Your task to perform on an android device: Open calendar and show me the second week of next month Image 0: 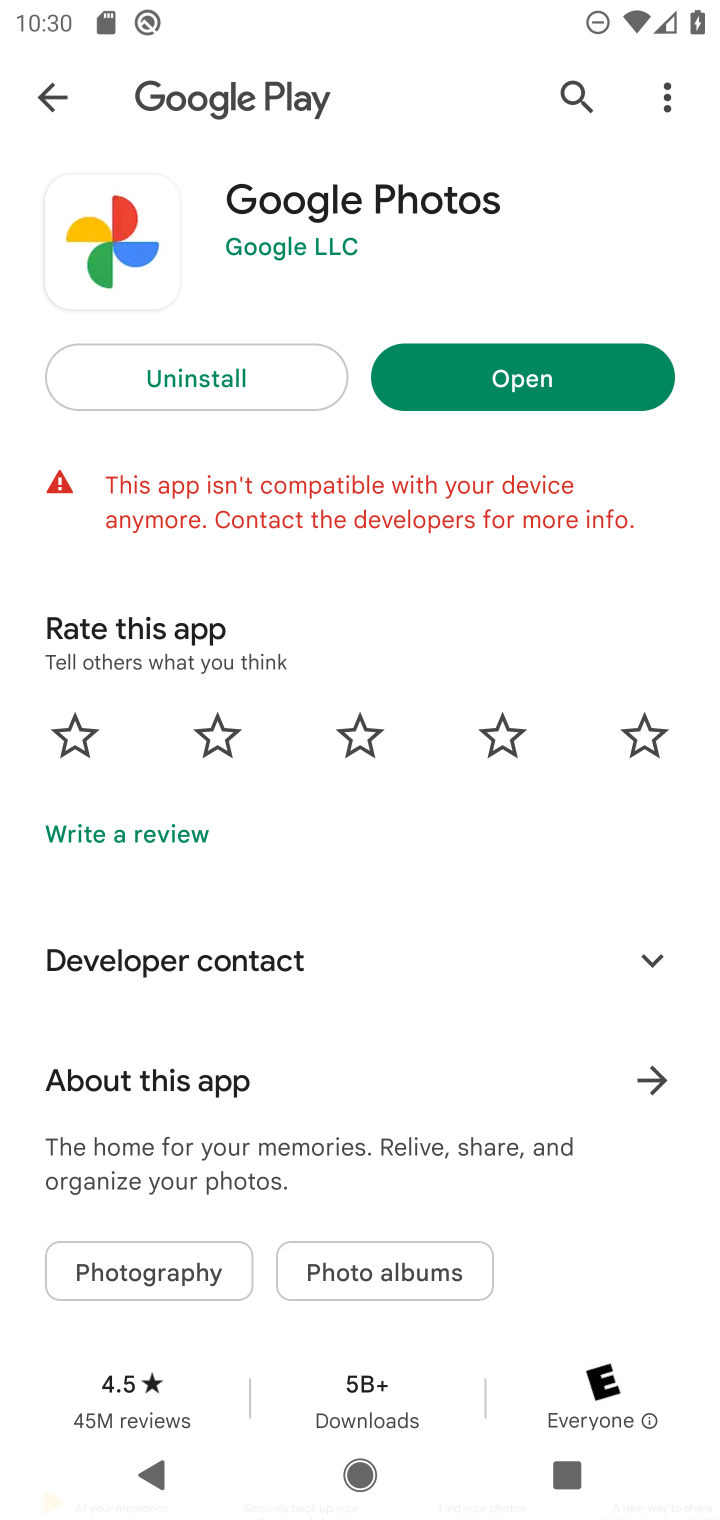
Step 0: press home button
Your task to perform on an android device: Open calendar and show me the second week of next month Image 1: 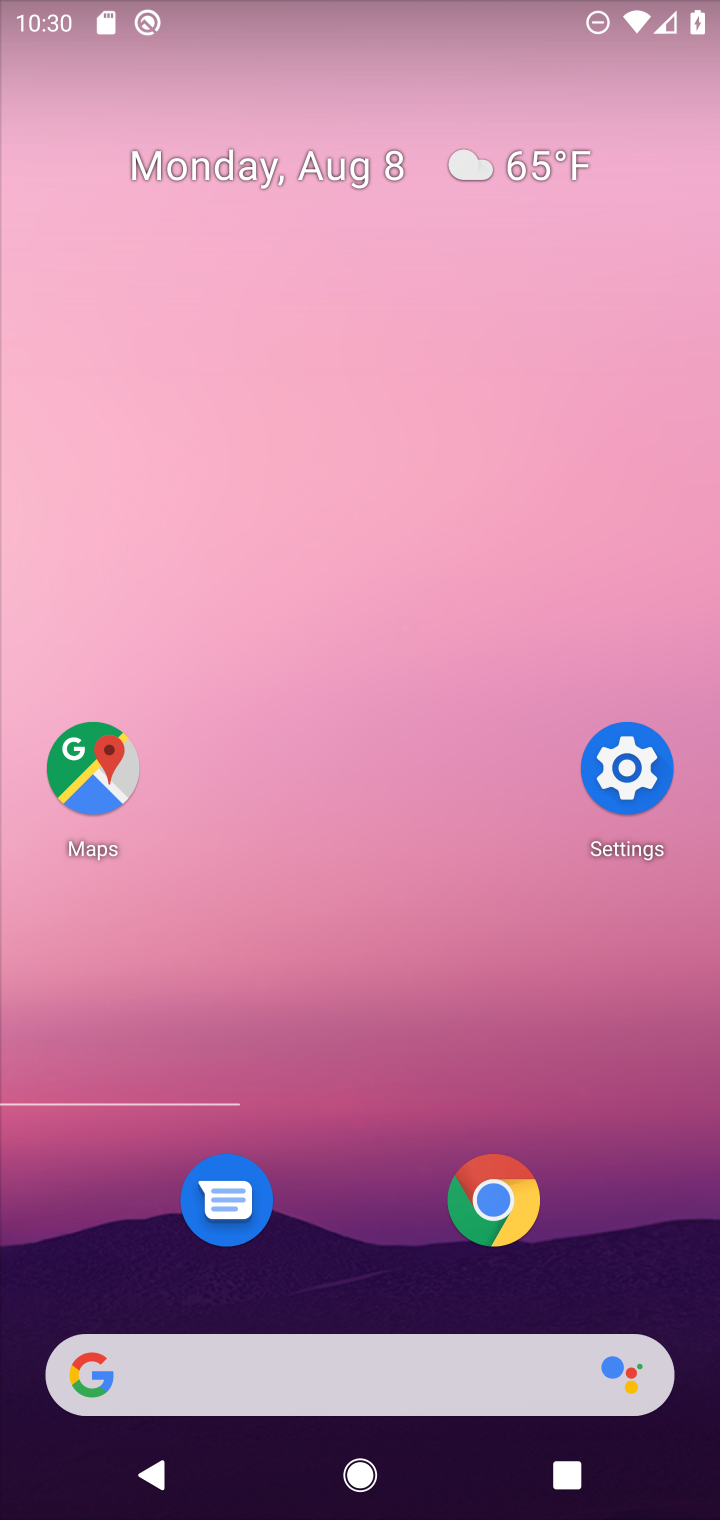
Step 1: drag from (404, 1118) to (461, 10)
Your task to perform on an android device: Open calendar and show me the second week of next month Image 2: 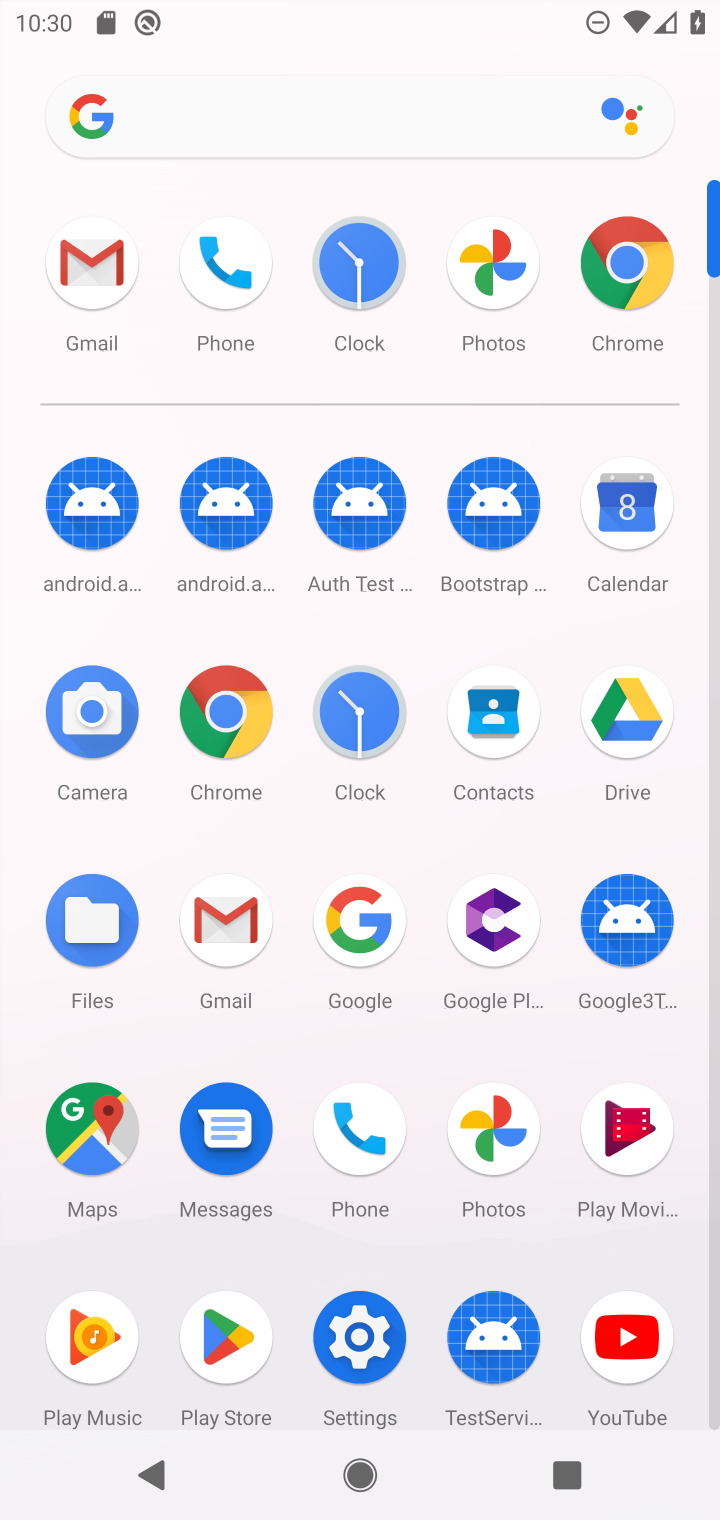
Step 2: click (616, 514)
Your task to perform on an android device: Open calendar and show me the second week of next month Image 3: 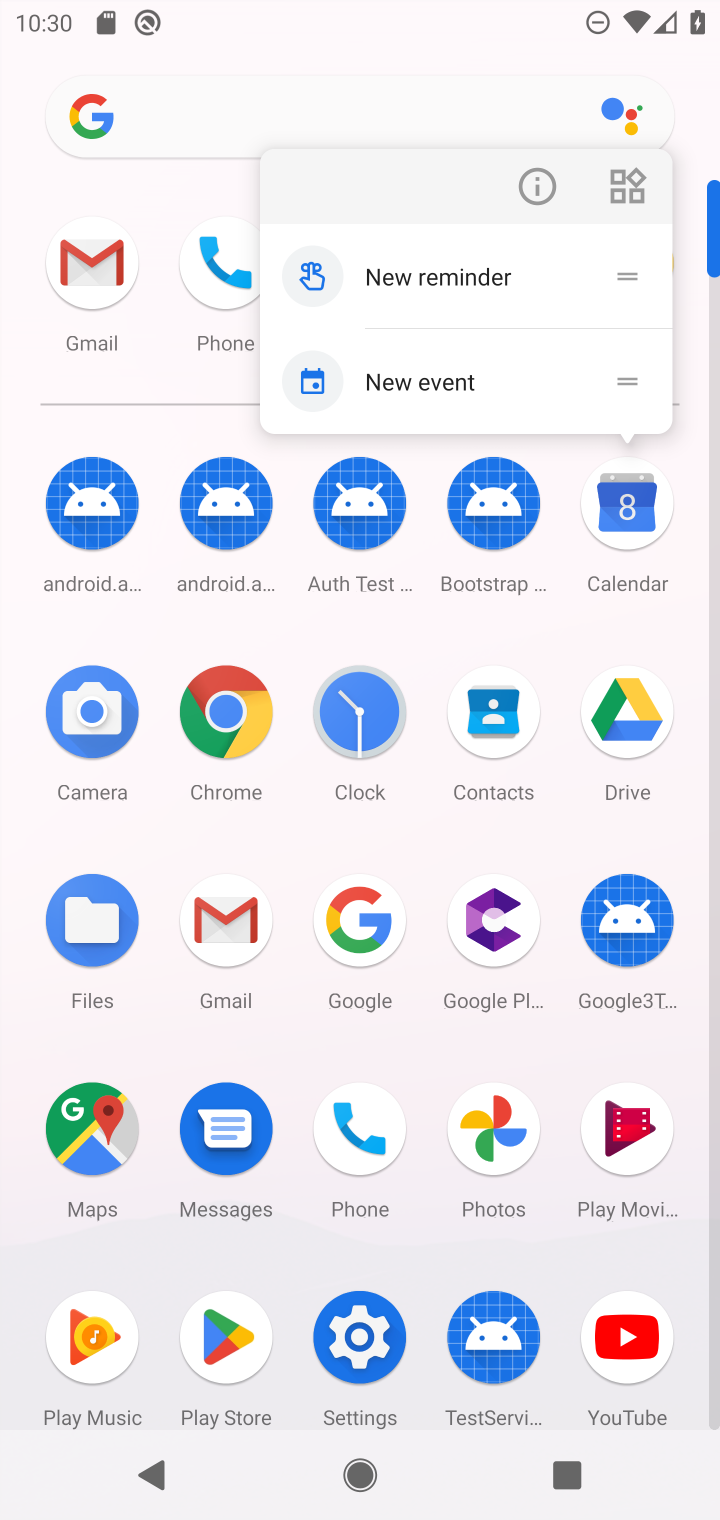
Step 3: click (616, 518)
Your task to perform on an android device: Open calendar and show me the second week of next month Image 4: 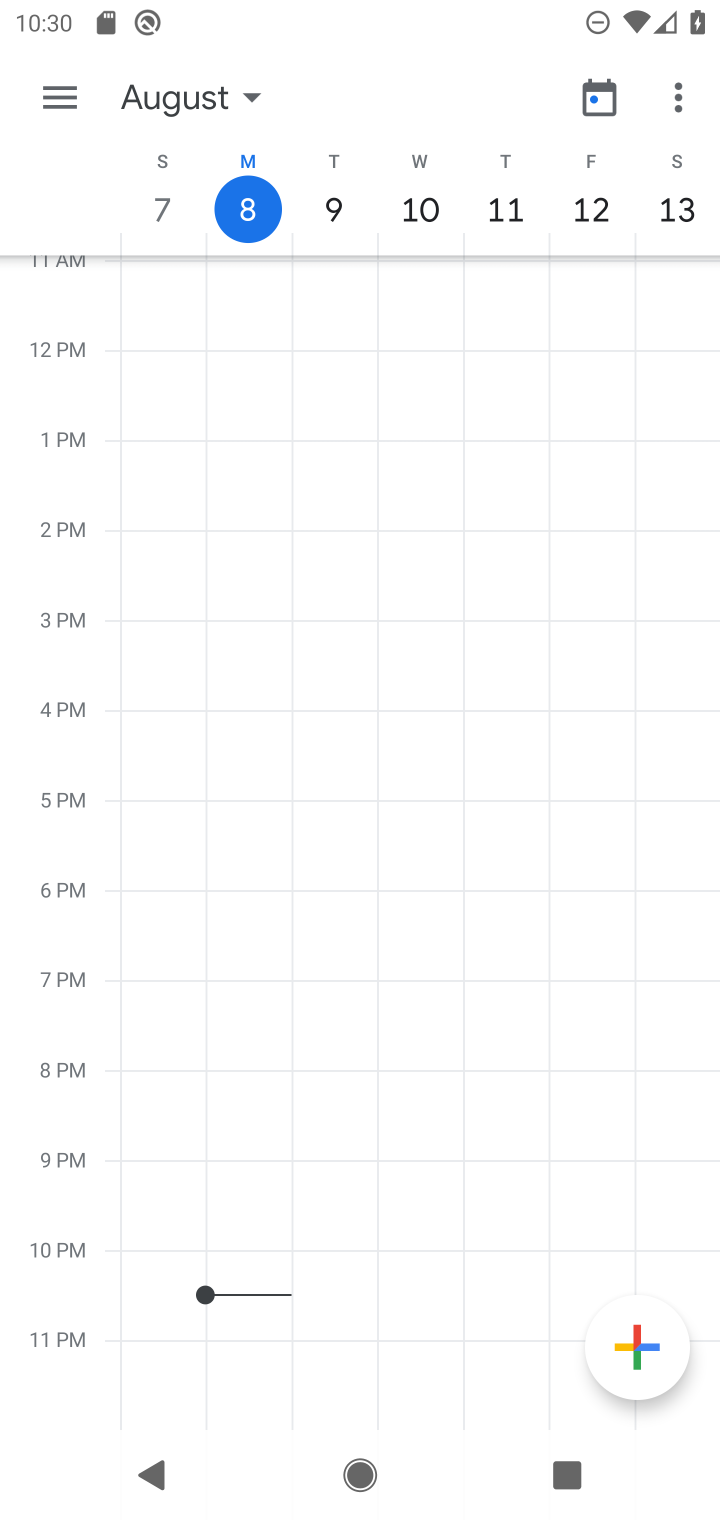
Step 4: click (173, 104)
Your task to perform on an android device: Open calendar and show me the second week of next month Image 5: 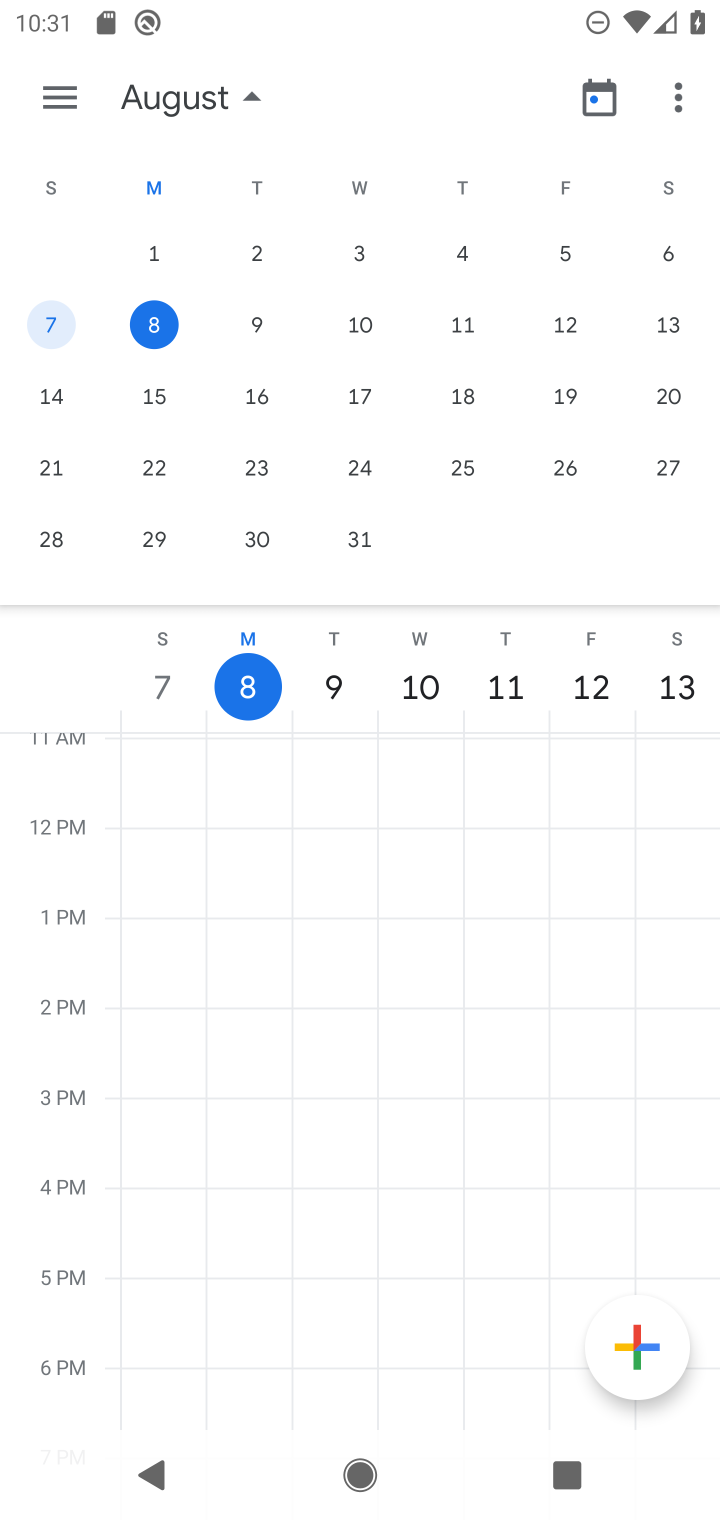
Step 5: drag from (633, 405) to (93, 397)
Your task to perform on an android device: Open calendar and show me the second week of next month Image 6: 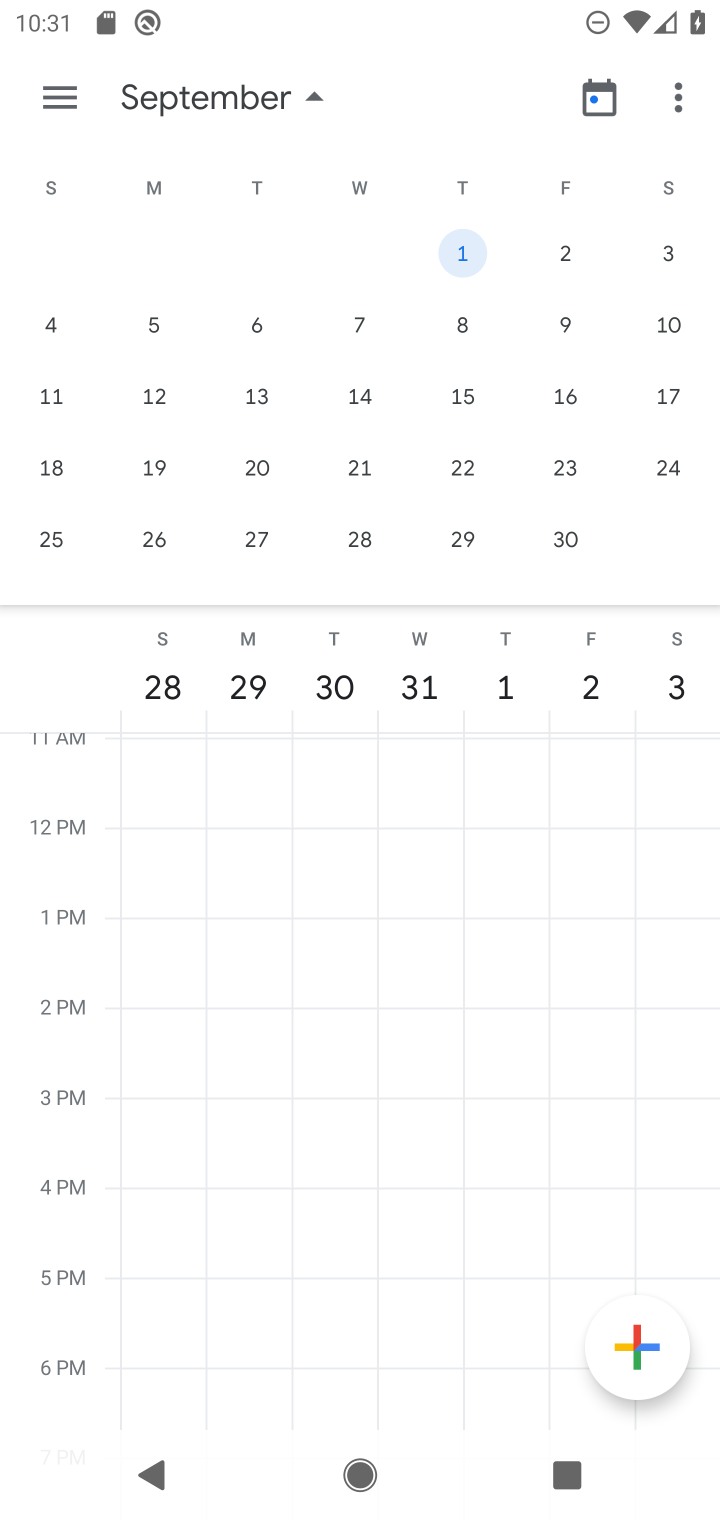
Step 6: click (61, 333)
Your task to perform on an android device: Open calendar and show me the second week of next month Image 7: 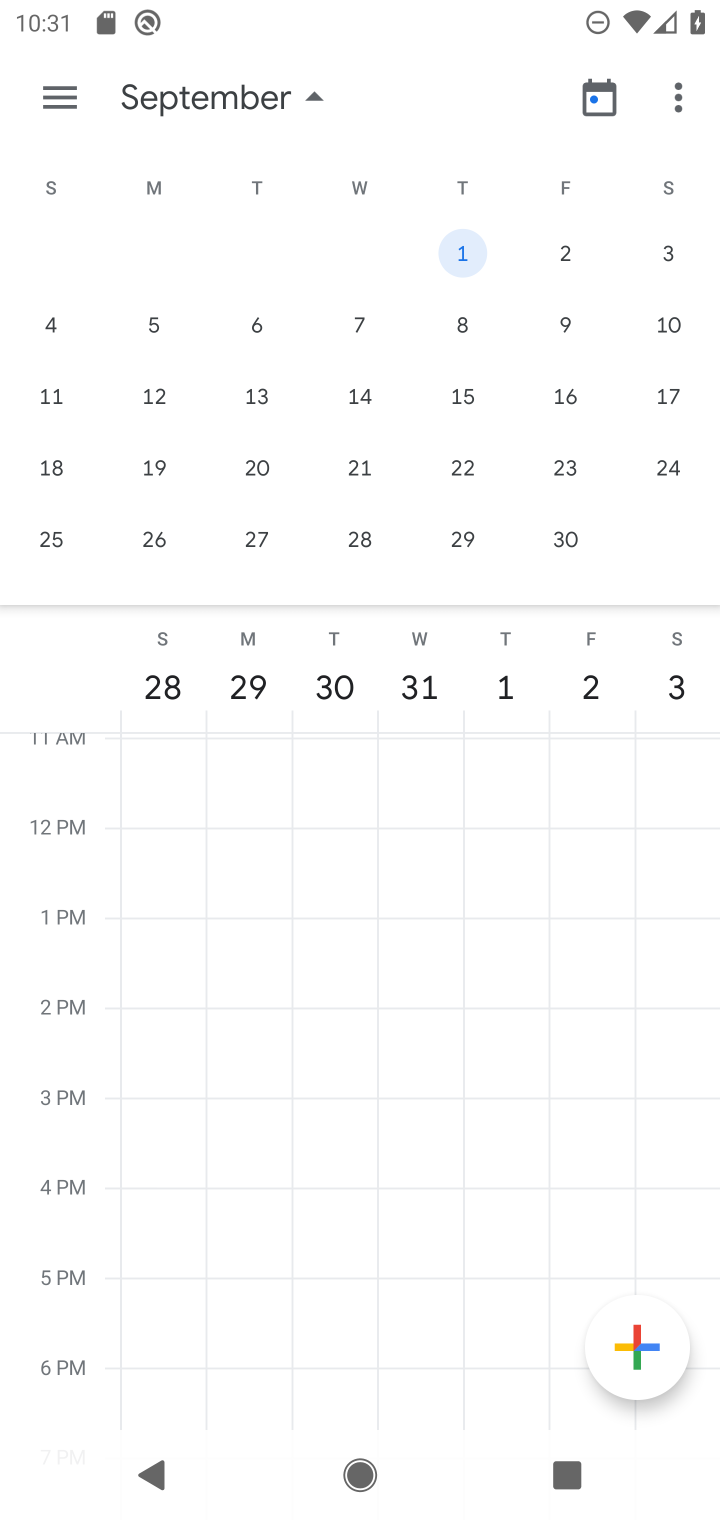
Step 7: click (38, 321)
Your task to perform on an android device: Open calendar and show me the second week of next month Image 8: 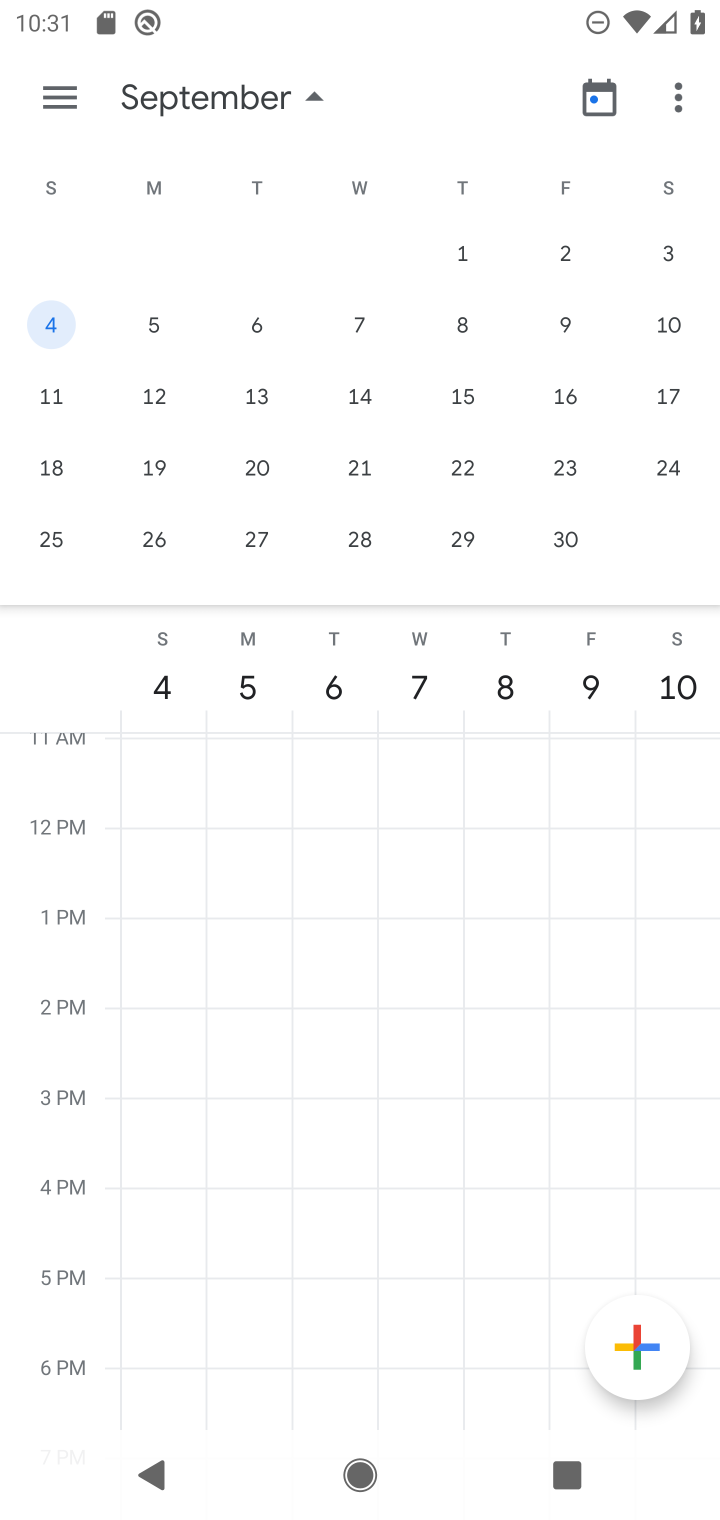
Step 8: click (57, 97)
Your task to perform on an android device: Open calendar and show me the second week of next month Image 9: 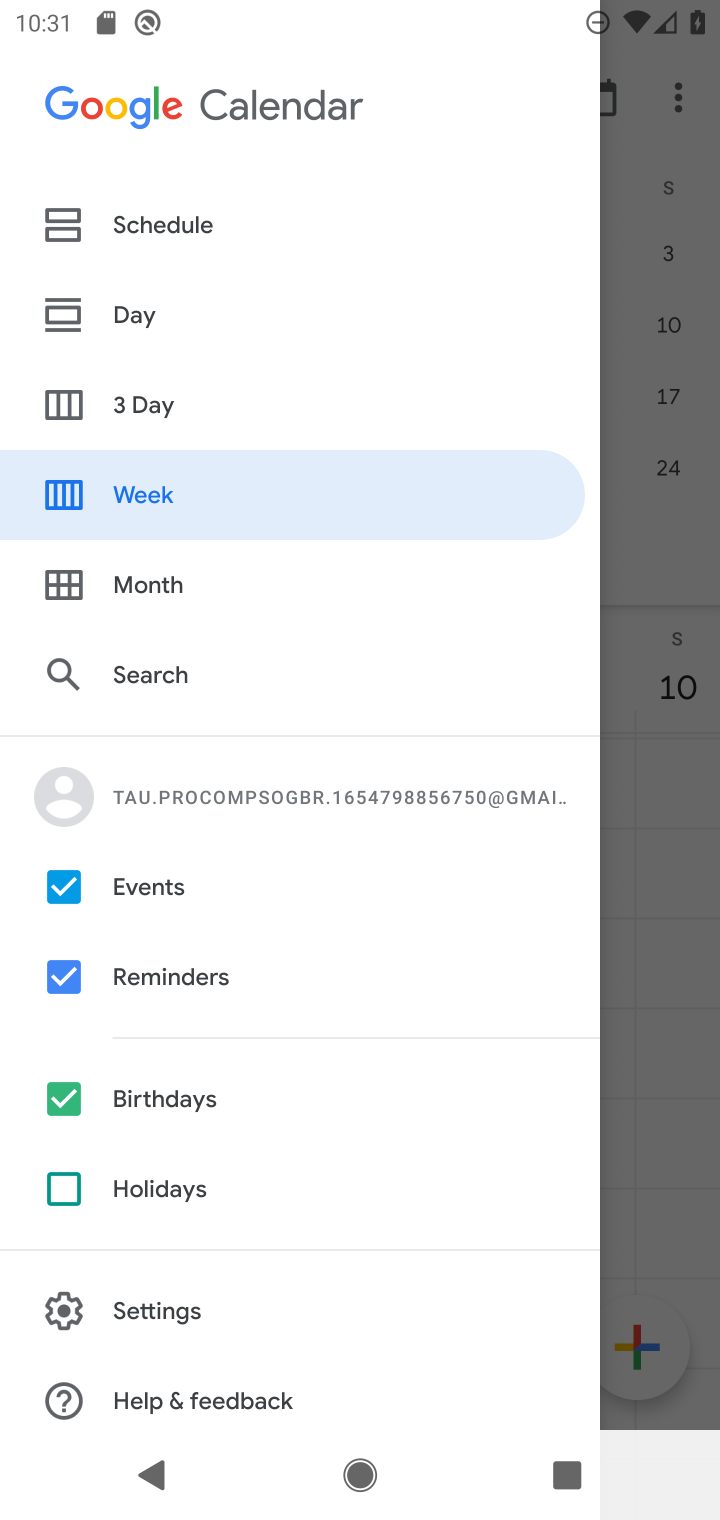
Step 9: click (218, 498)
Your task to perform on an android device: Open calendar and show me the second week of next month Image 10: 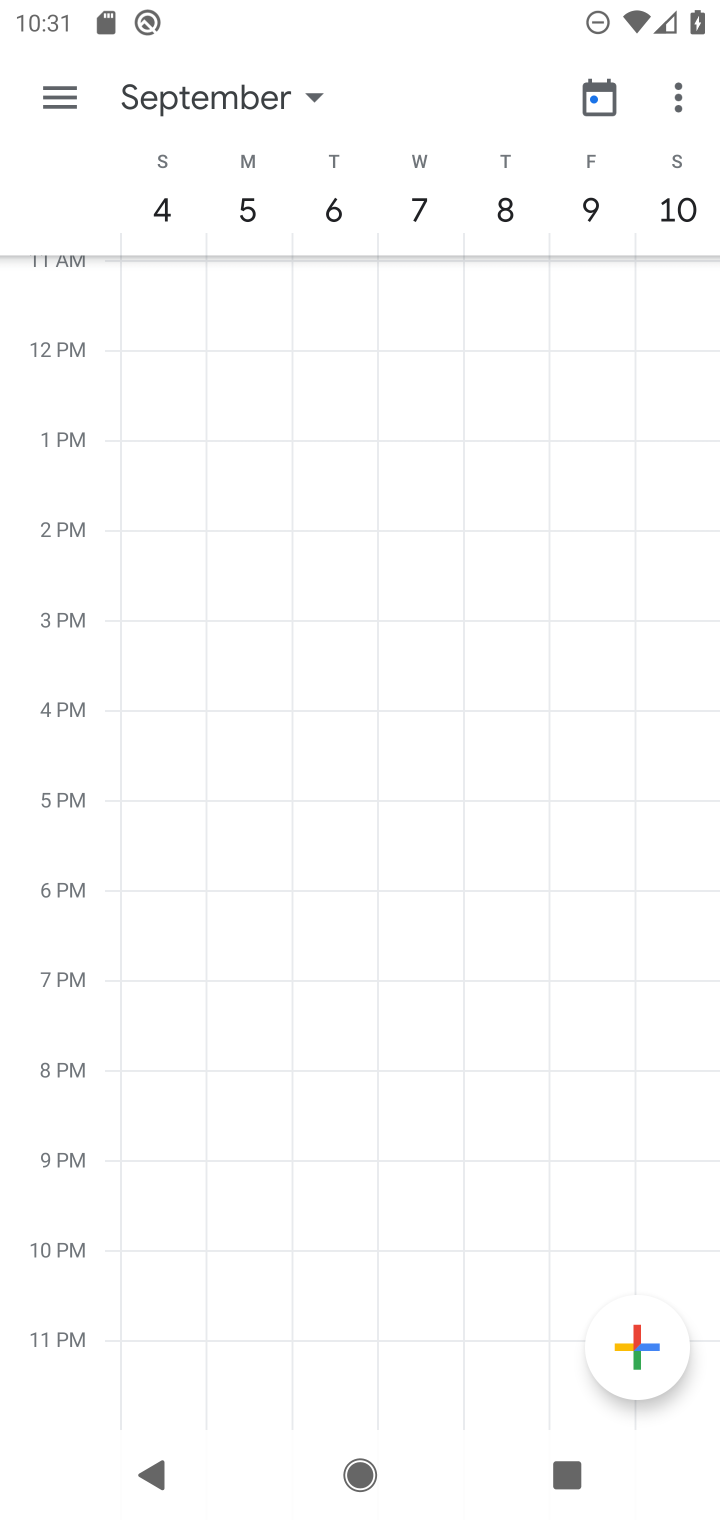
Step 10: task complete